Your task to perform on an android device: What is the recent news? Image 0: 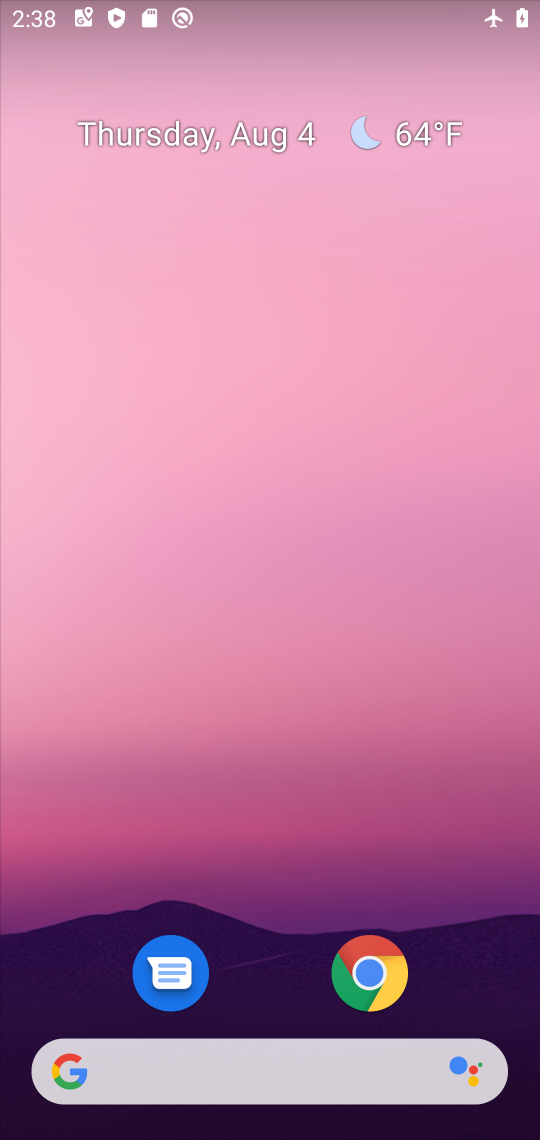
Step 0: click (306, 1067)
Your task to perform on an android device: What is the recent news? Image 1: 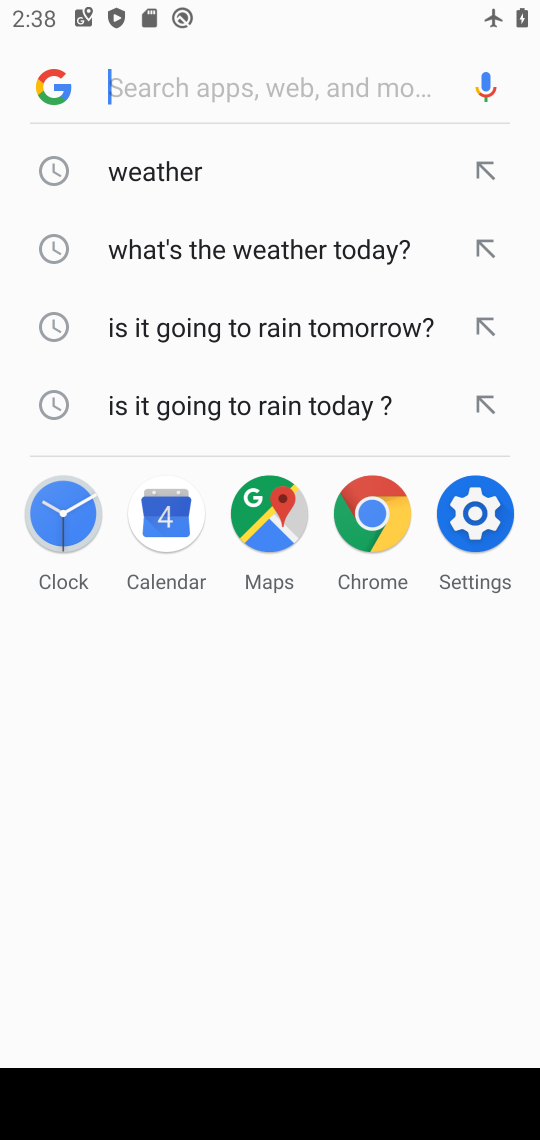
Step 1: type "recent news?"
Your task to perform on an android device: What is the recent news? Image 2: 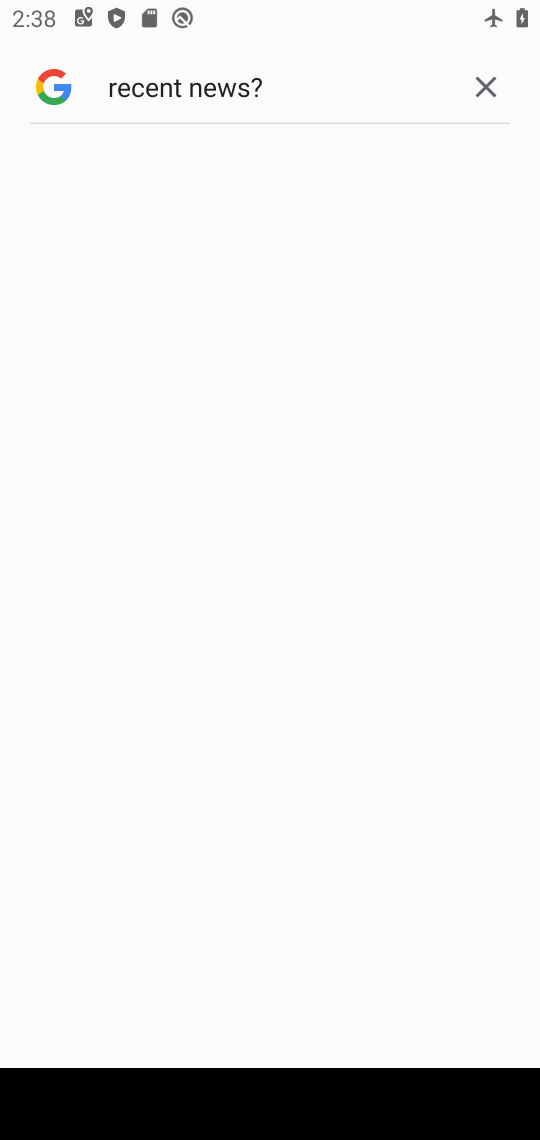
Step 2: task complete